Your task to perform on an android device: Add "rayovac triple a" to the cart on walmart, then select checkout. Image 0: 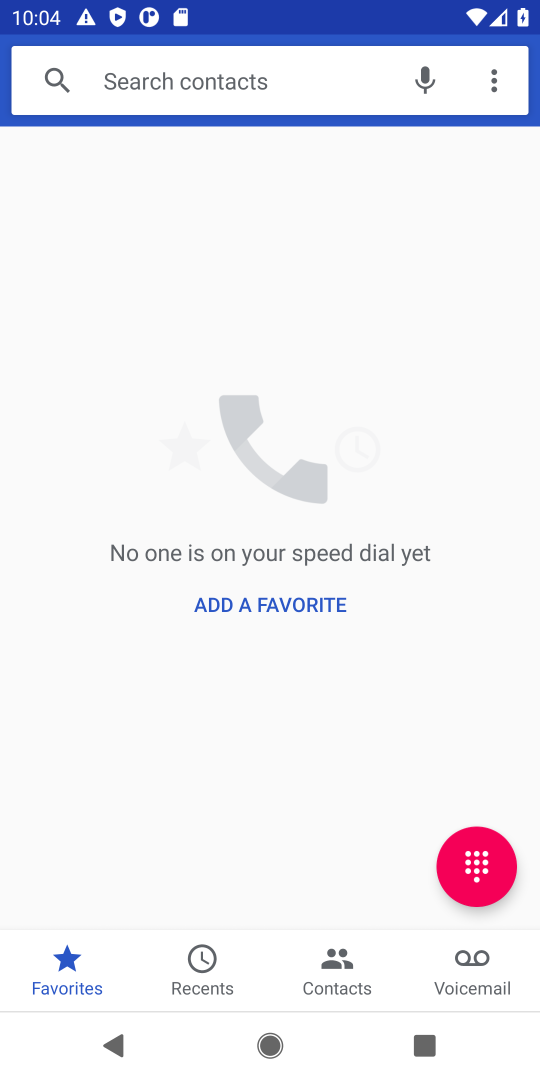
Step 0: press home button
Your task to perform on an android device: Add "rayovac triple a" to the cart on walmart, then select checkout. Image 1: 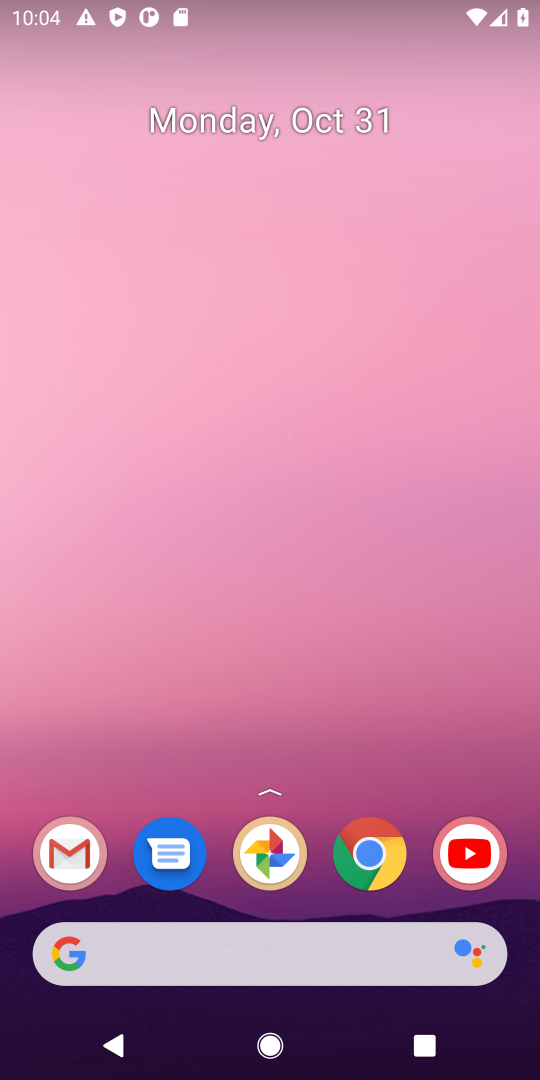
Step 1: click (244, 937)
Your task to perform on an android device: Add "rayovac triple a" to the cart on walmart, then select checkout. Image 2: 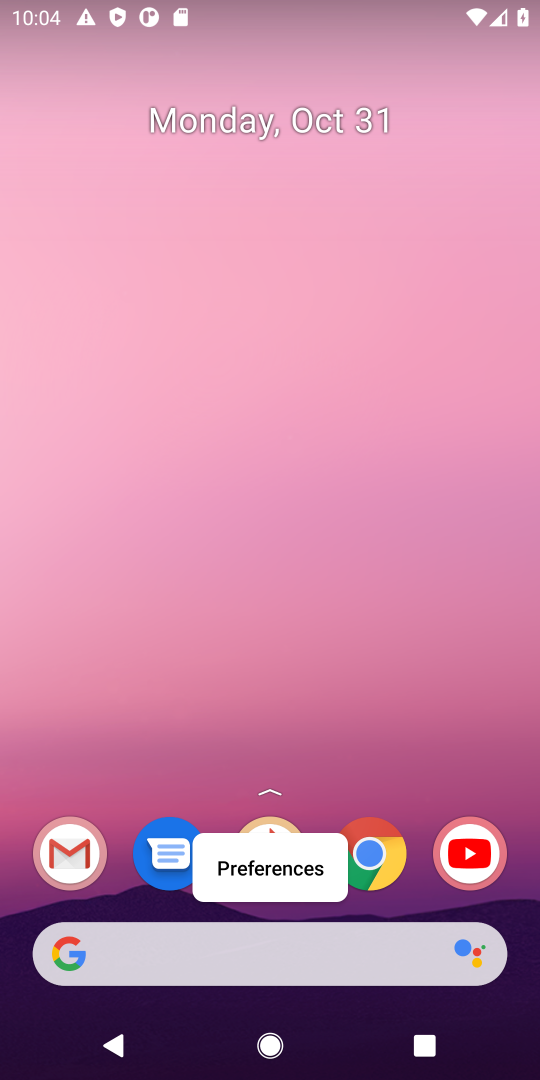
Step 2: click (246, 937)
Your task to perform on an android device: Add "rayovac triple a" to the cart on walmart, then select checkout. Image 3: 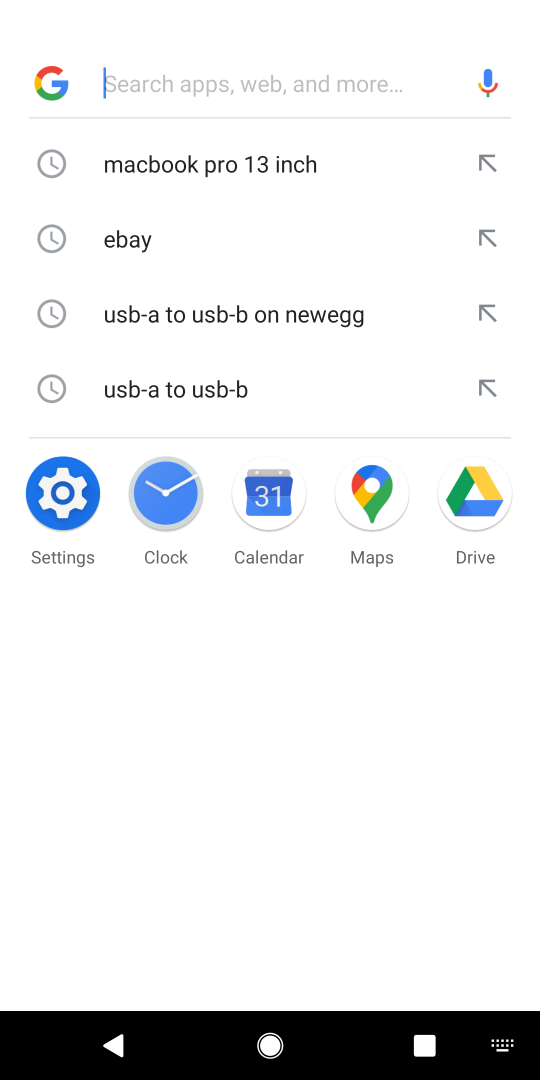
Step 3: type "walmart"
Your task to perform on an android device: Add "rayovac triple a" to the cart on walmart, then select checkout. Image 4: 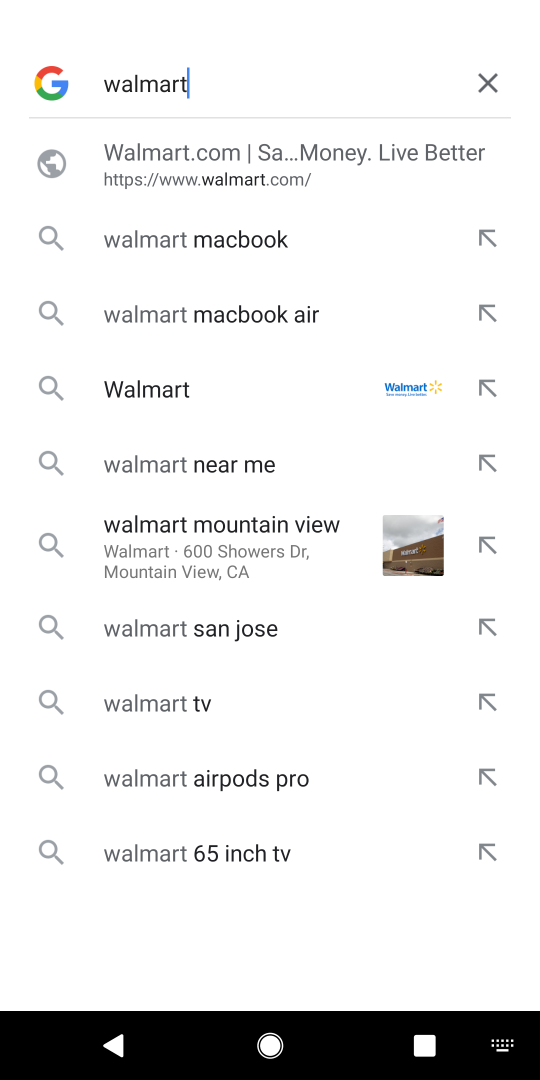
Step 4: type ""
Your task to perform on an android device: Add "rayovac triple a" to the cart on walmart, then select checkout. Image 5: 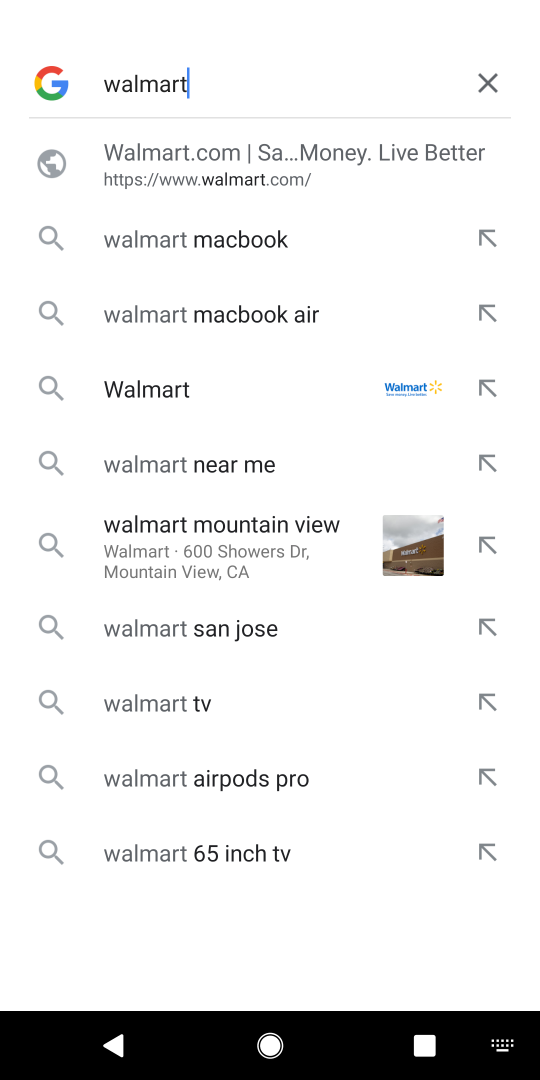
Step 5: type ""
Your task to perform on an android device: Add "rayovac triple a" to the cart on walmart, then select checkout. Image 6: 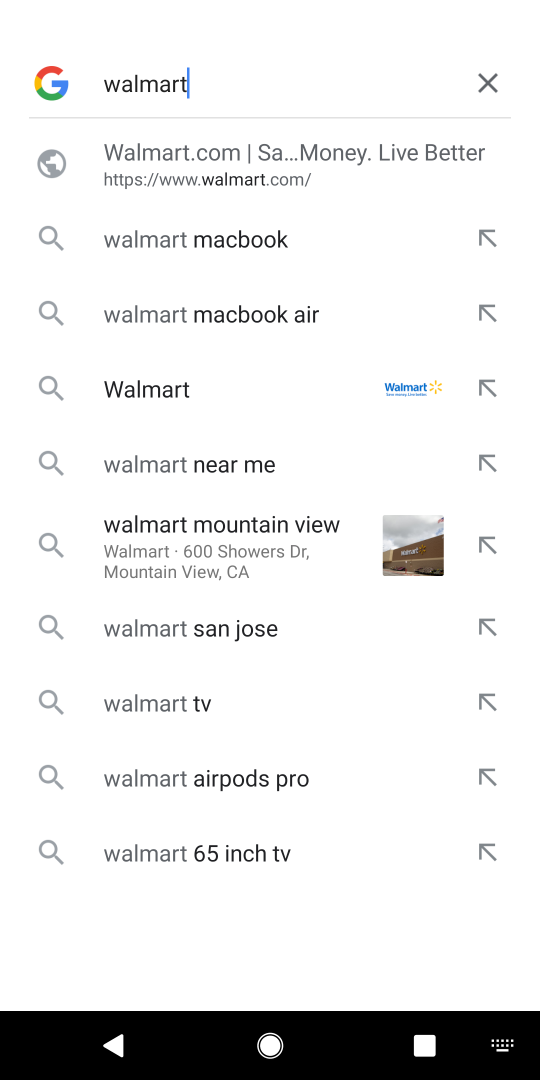
Step 6: press enter
Your task to perform on an android device: Add "rayovac triple a" to the cart on walmart, then select checkout. Image 7: 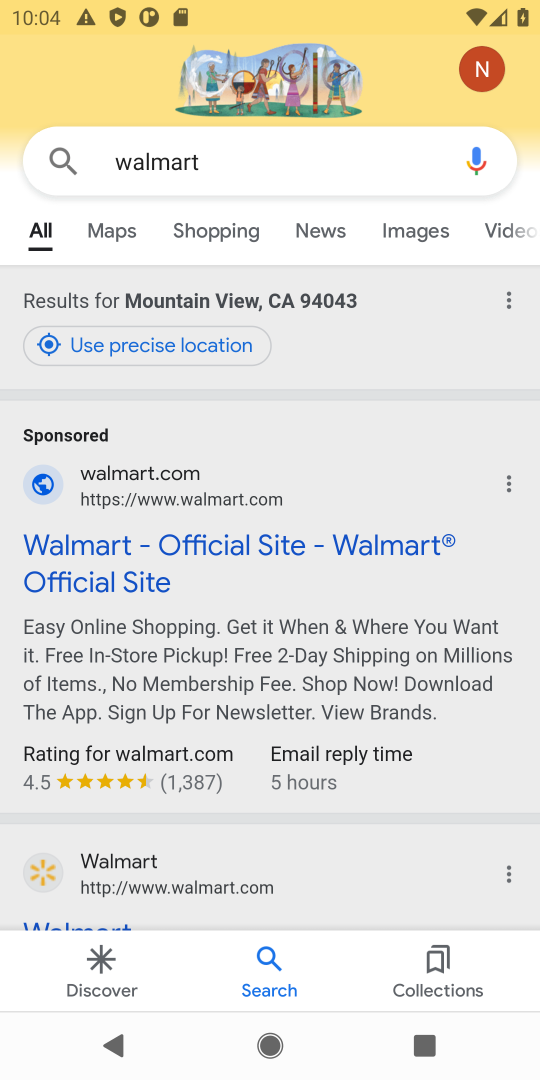
Step 7: click (181, 529)
Your task to perform on an android device: Add "rayovac triple a" to the cart on walmart, then select checkout. Image 8: 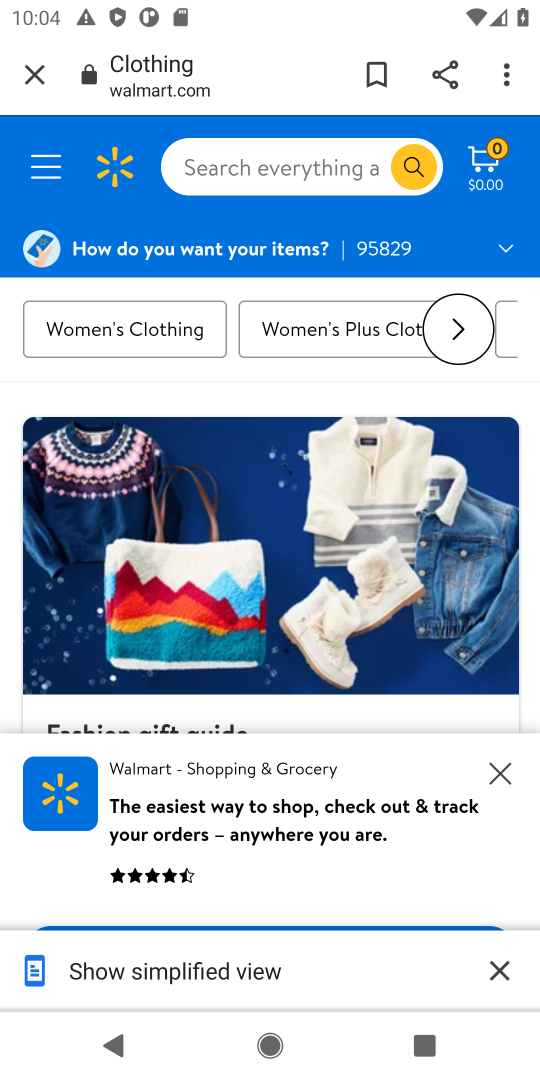
Step 8: click (506, 769)
Your task to perform on an android device: Add "rayovac triple a" to the cart on walmart, then select checkout. Image 9: 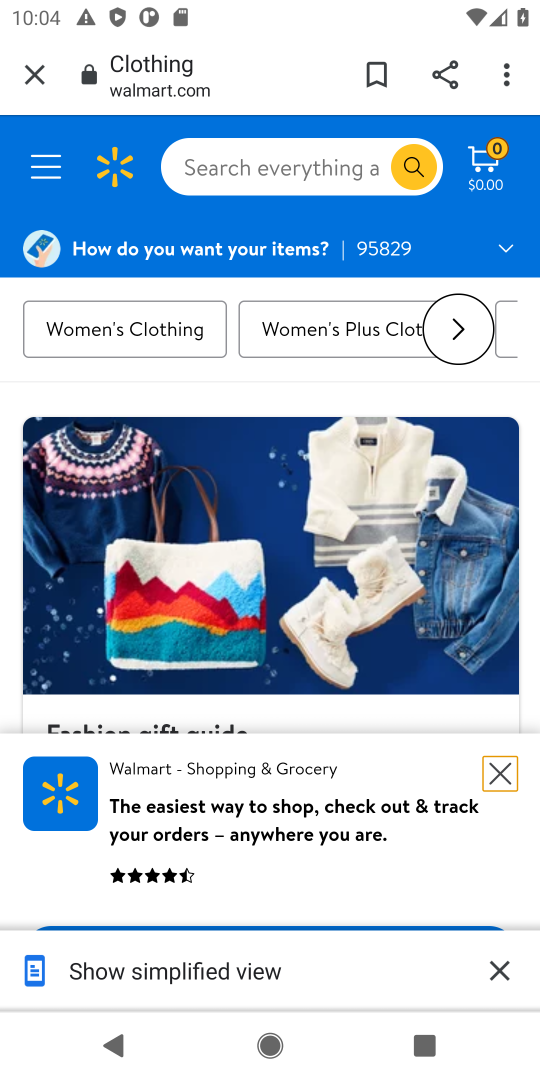
Step 9: click (510, 968)
Your task to perform on an android device: Add "rayovac triple a" to the cart on walmart, then select checkout. Image 10: 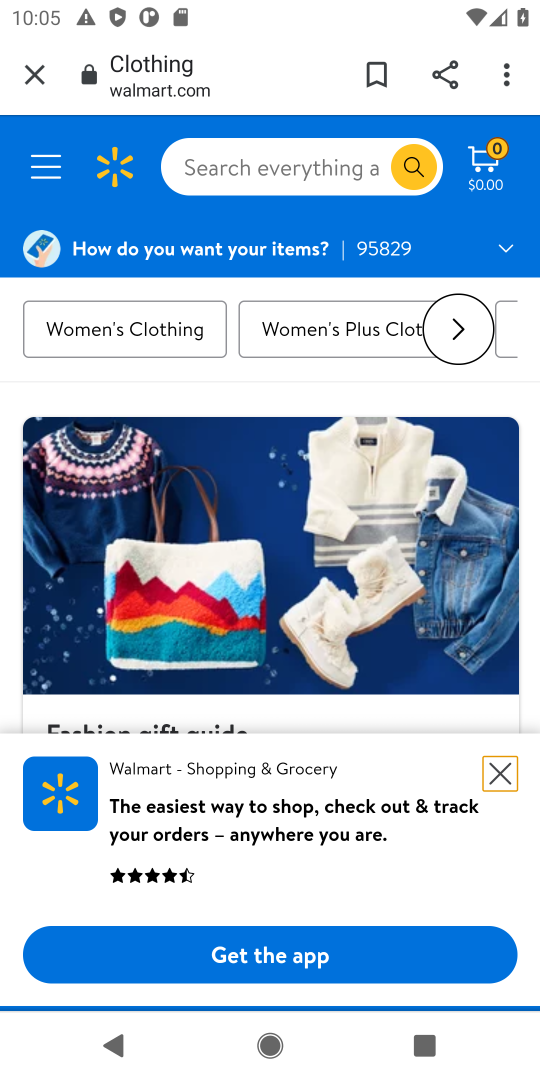
Step 10: click (493, 775)
Your task to perform on an android device: Add "rayovac triple a" to the cart on walmart, then select checkout. Image 11: 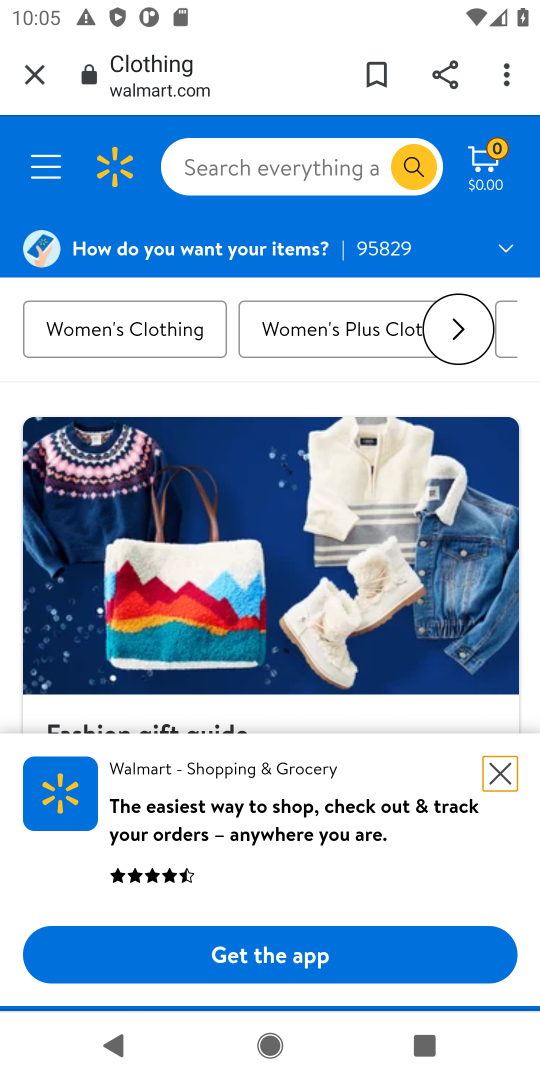
Step 11: click (276, 158)
Your task to perform on an android device: Add "rayovac triple a" to the cart on walmart, then select checkout. Image 12: 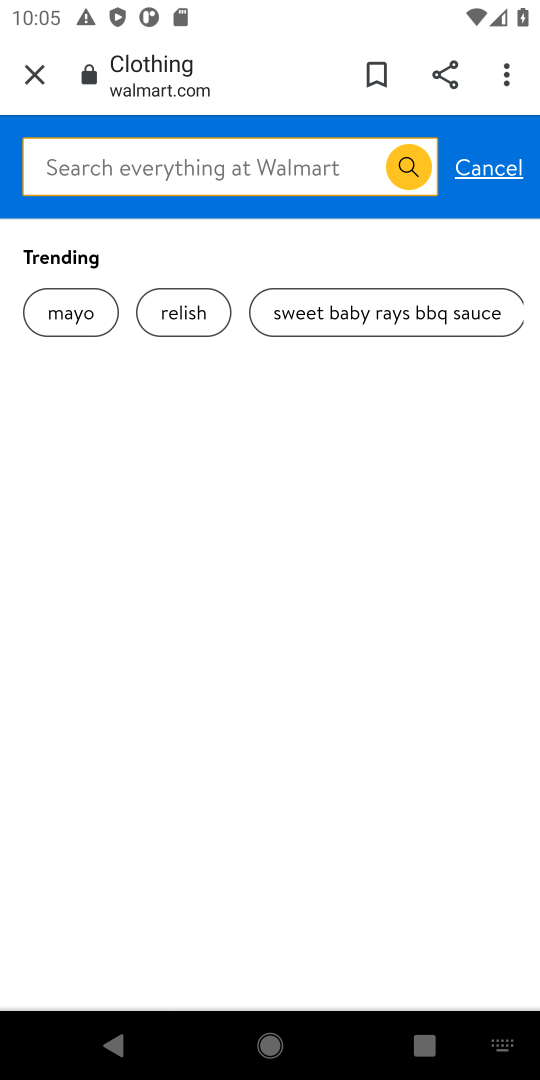
Step 12: type "rayovac triple a"
Your task to perform on an android device: Add "rayovac triple a" to the cart on walmart, then select checkout. Image 13: 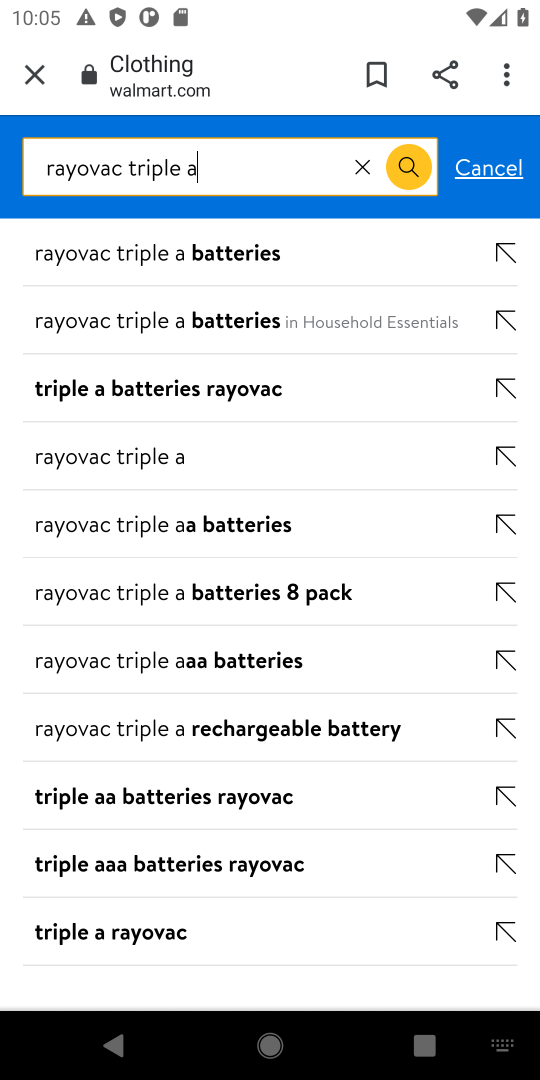
Step 13: type ""
Your task to perform on an android device: Add "rayovac triple a" to the cart on walmart, then select checkout. Image 14: 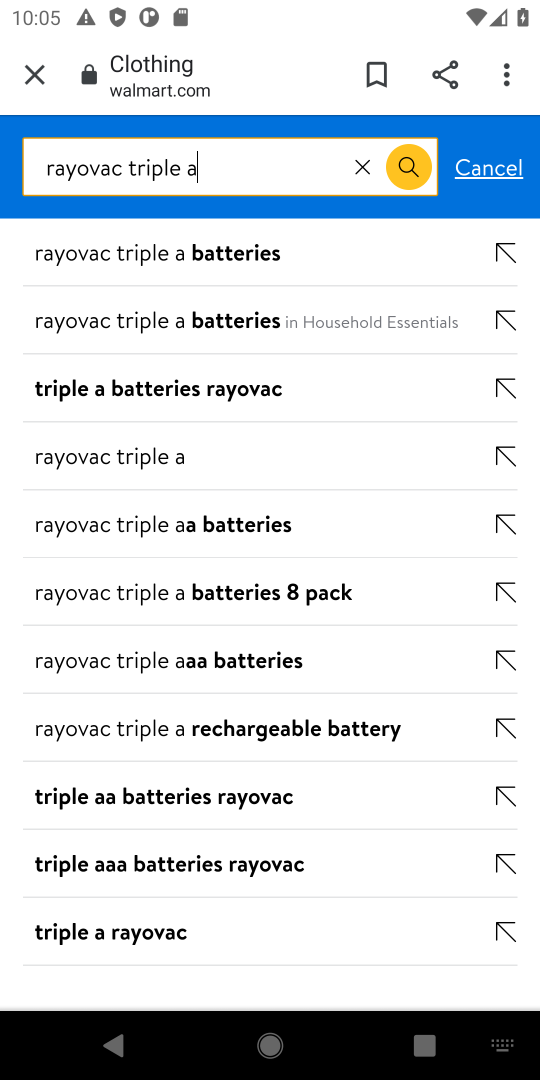
Step 14: press enter
Your task to perform on an android device: Add "rayovac triple a" to the cart on walmart, then select checkout. Image 15: 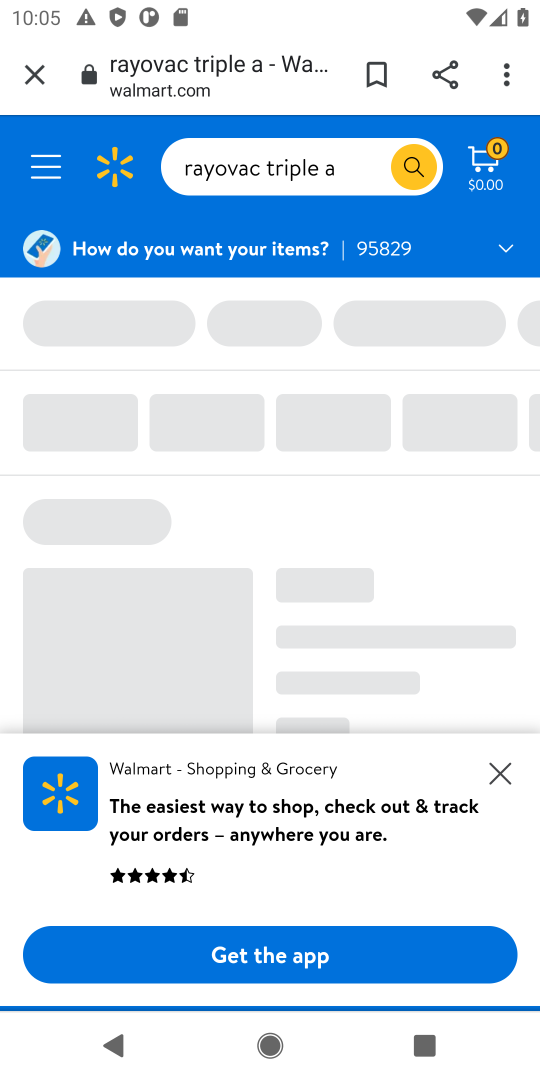
Step 15: click (497, 770)
Your task to perform on an android device: Add "rayovac triple a" to the cart on walmart, then select checkout. Image 16: 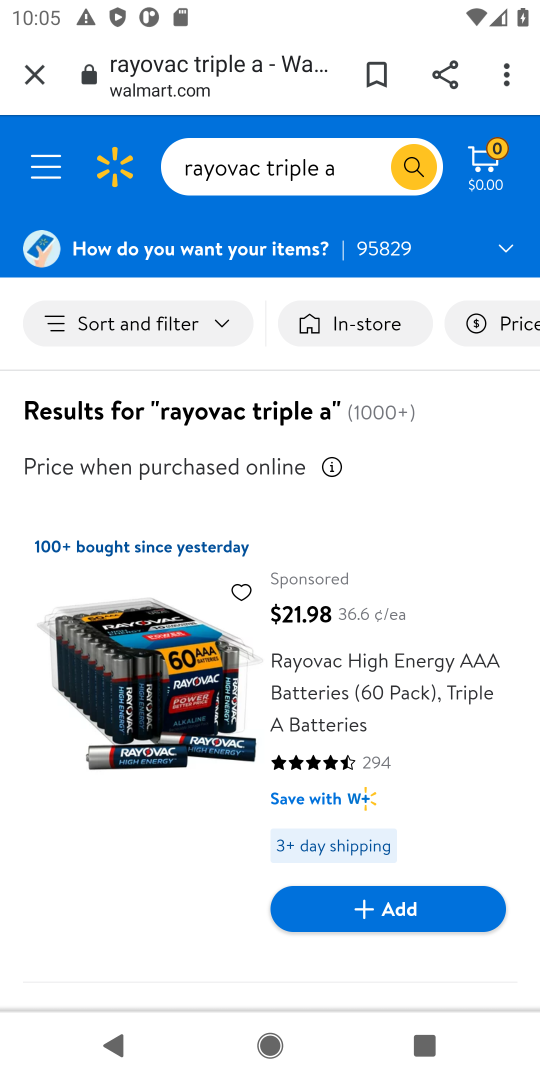
Step 16: click (421, 903)
Your task to perform on an android device: Add "rayovac triple a" to the cart on walmart, then select checkout. Image 17: 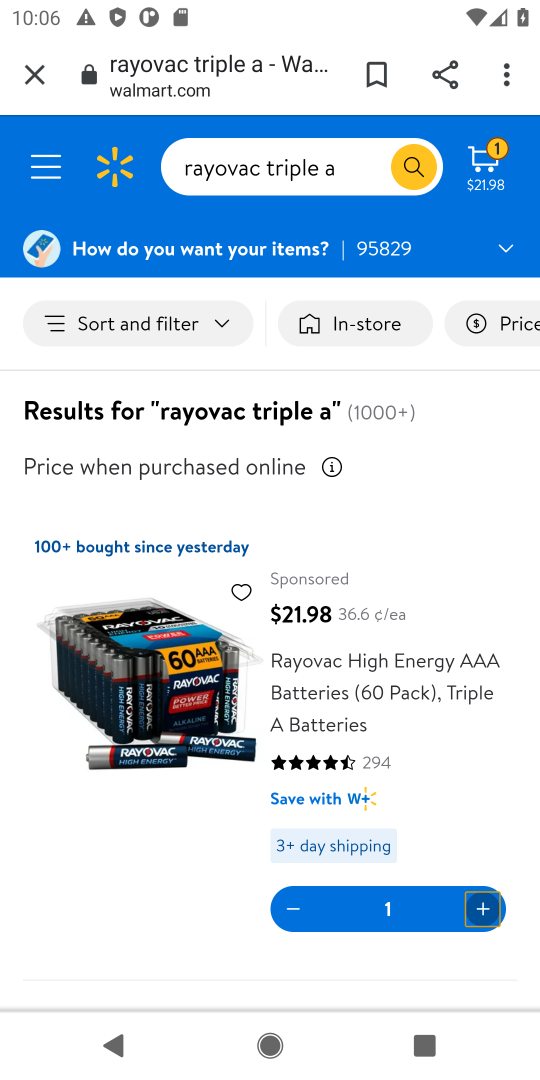
Step 17: click (479, 922)
Your task to perform on an android device: Add "rayovac triple a" to the cart on walmart, then select checkout. Image 18: 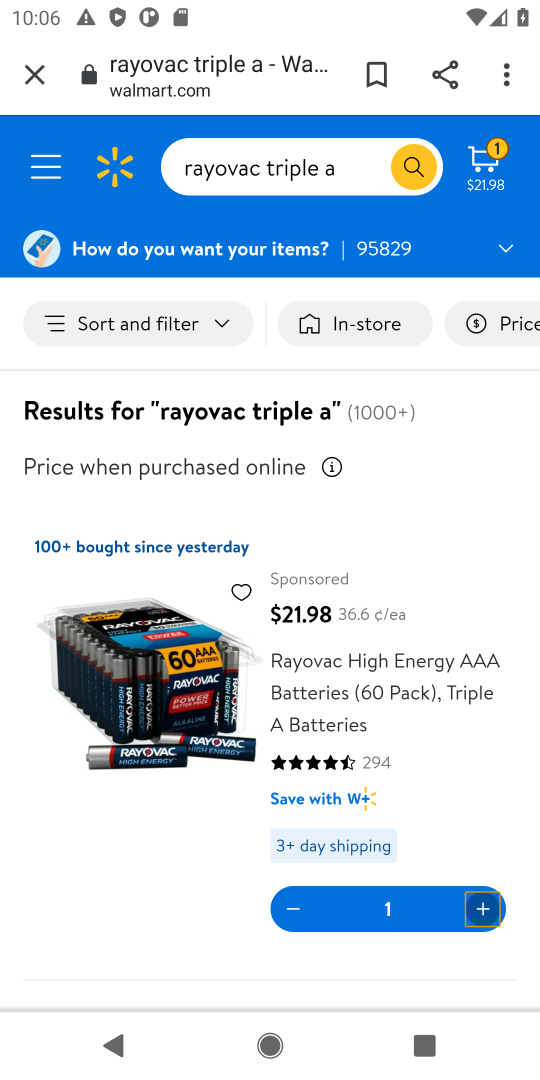
Step 18: click (482, 914)
Your task to perform on an android device: Add "rayovac triple a" to the cart on walmart, then select checkout. Image 19: 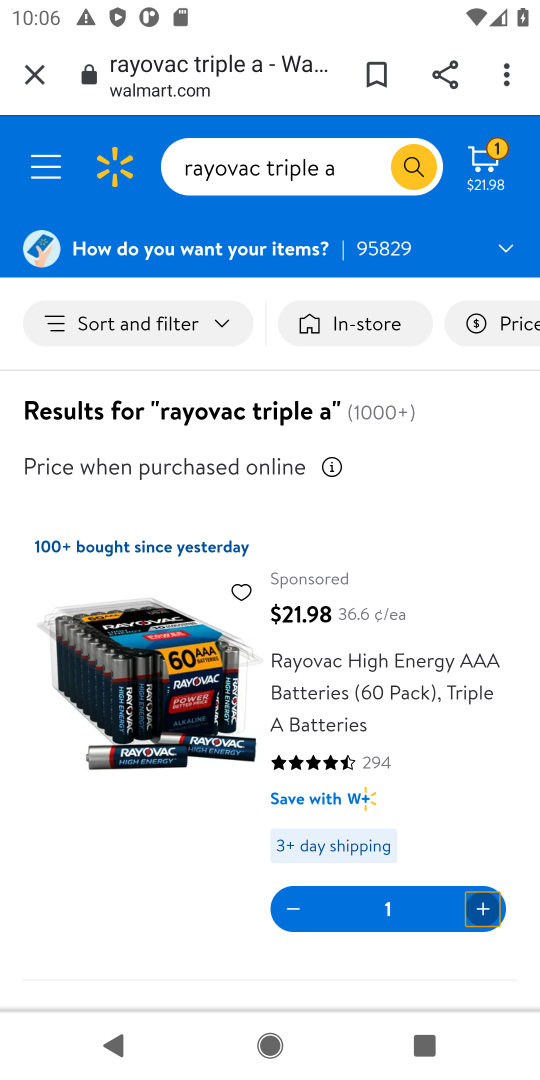
Step 19: click (495, 909)
Your task to perform on an android device: Add "rayovac triple a" to the cart on walmart, then select checkout. Image 20: 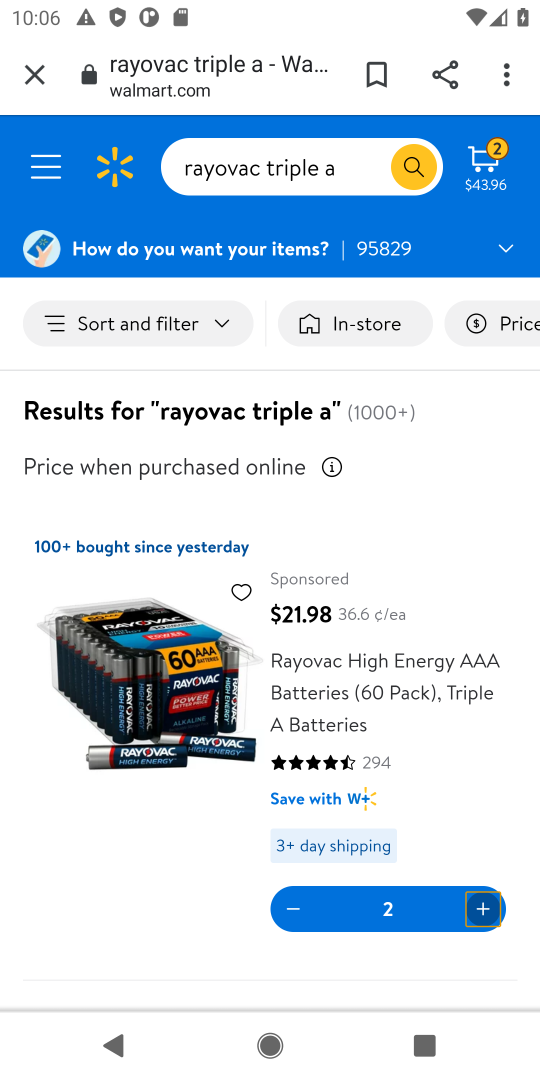
Step 20: click (488, 151)
Your task to perform on an android device: Add "rayovac triple a" to the cart on walmart, then select checkout. Image 21: 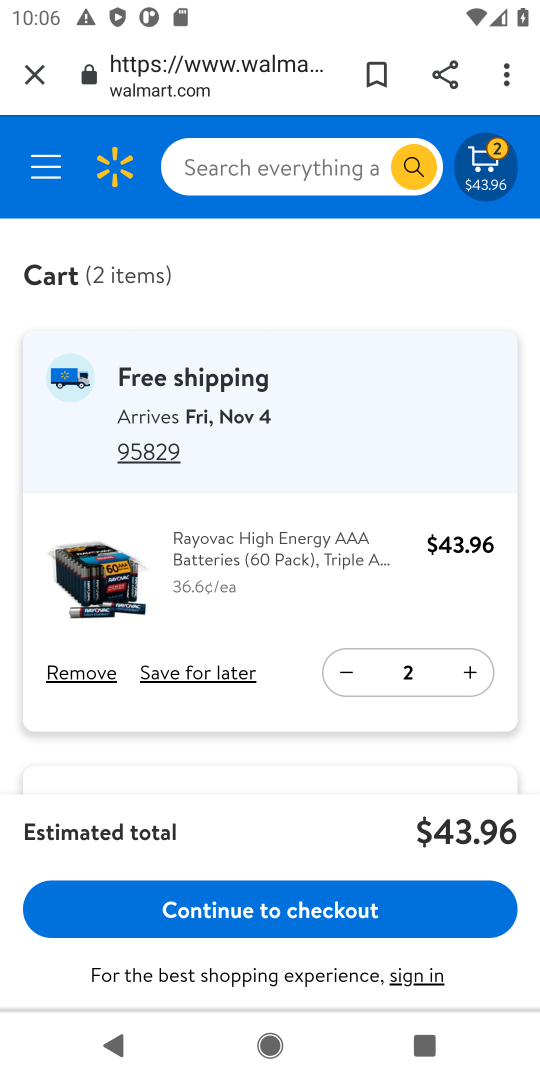
Step 21: click (283, 916)
Your task to perform on an android device: Add "rayovac triple a" to the cart on walmart, then select checkout. Image 22: 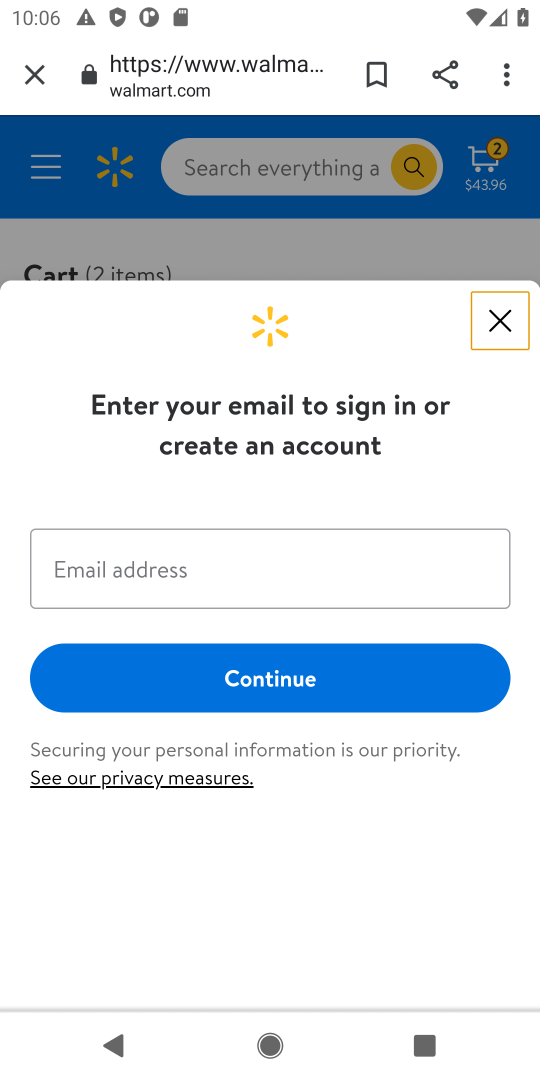
Step 22: task complete